Your task to perform on an android device: What's the weather going to be this weekend? Image 0: 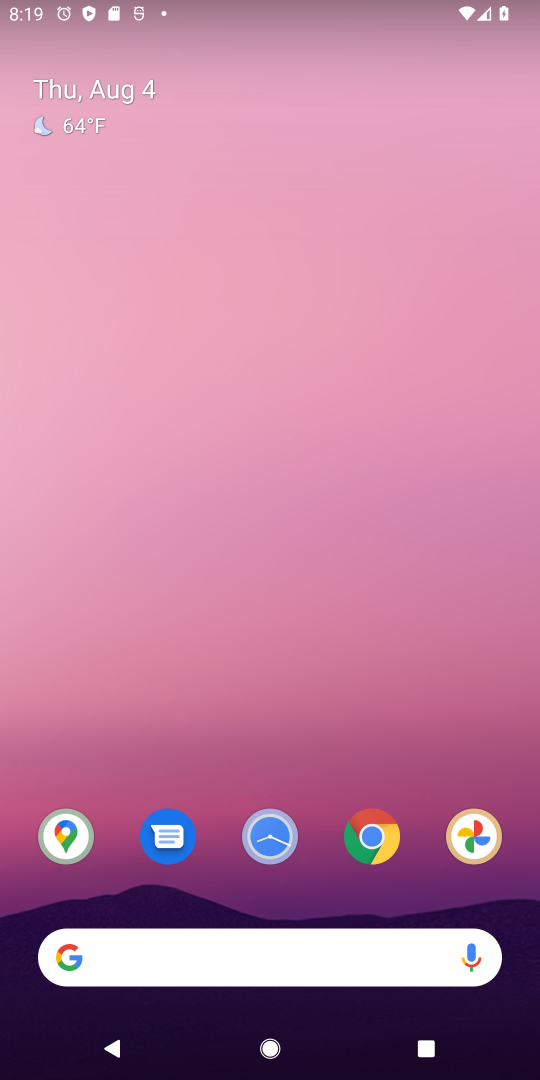
Step 0: click (257, 956)
Your task to perform on an android device: What's the weather going to be this weekend? Image 1: 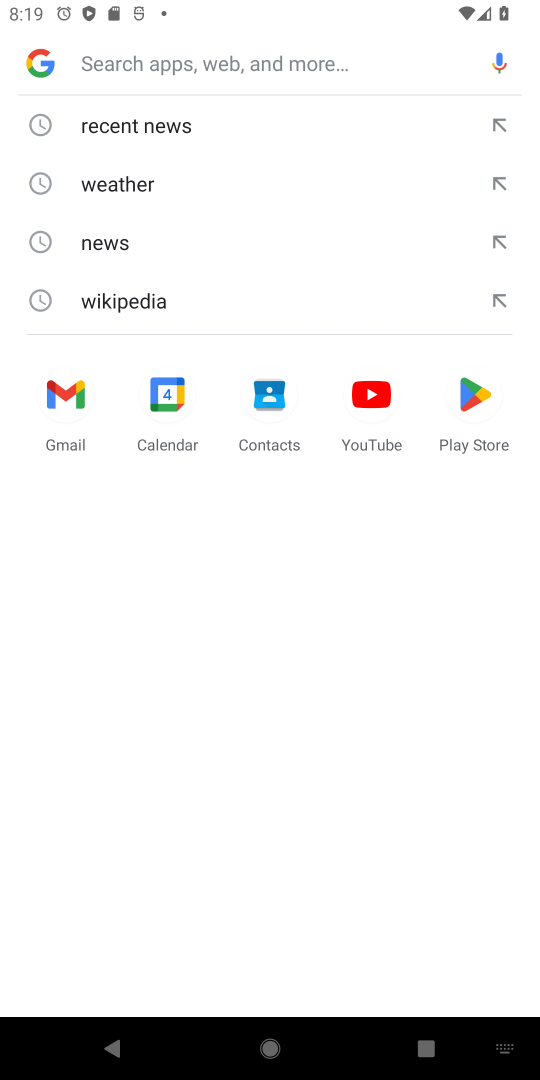
Step 1: click (124, 189)
Your task to perform on an android device: What's the weather going to be this weekend? Image 2: 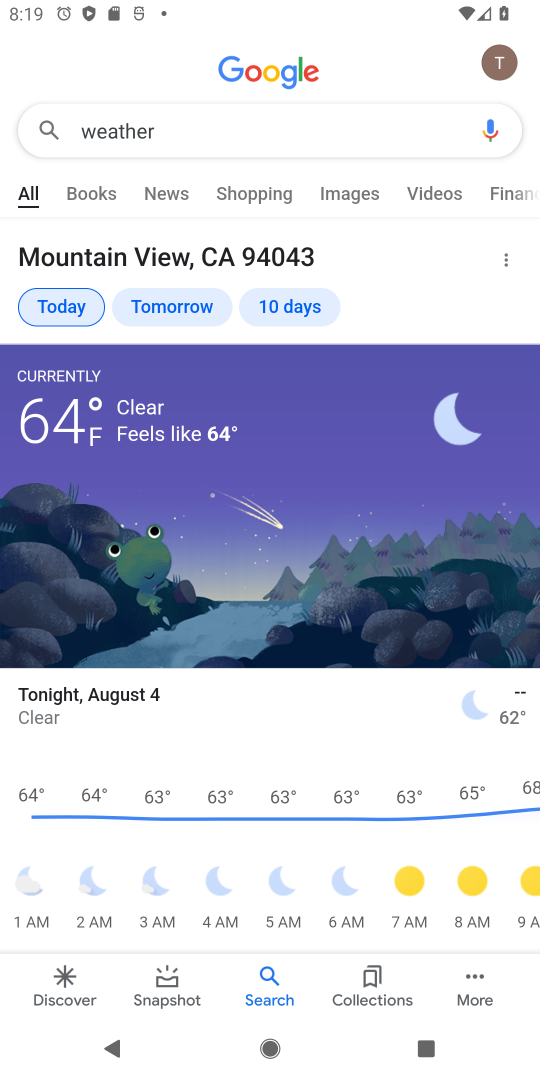
Step 2: click (296, 317)
Your task to perform on an android device: What's the weather going to be this weekend? Image 3: 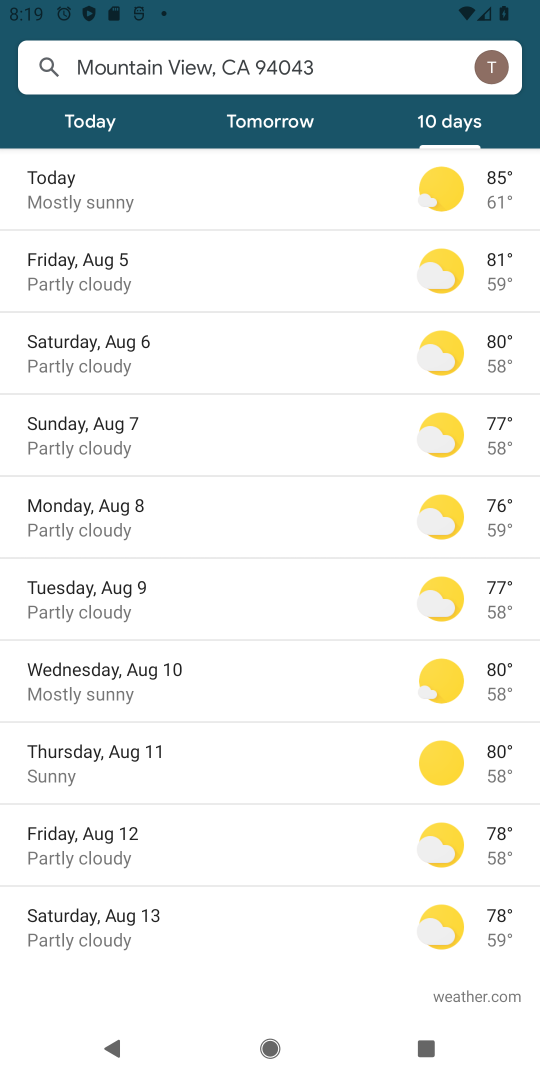
Step 3: task complete